Your task to perform on an android device: Open Google Image 0: 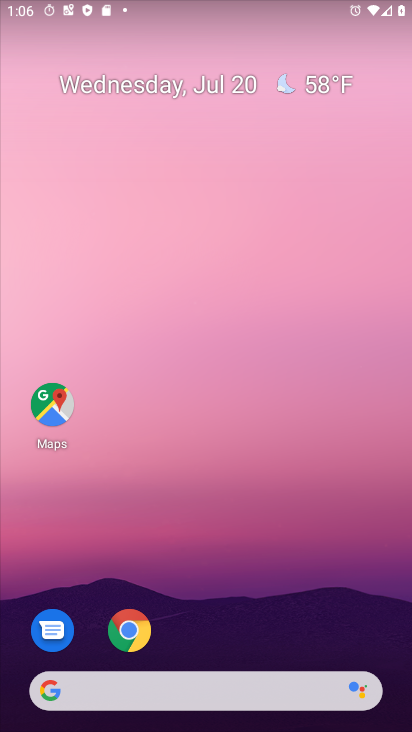
Step 0: drag from (150, 698) to (276, 102)
Your task to perform on an android device: Open Google Image 1: 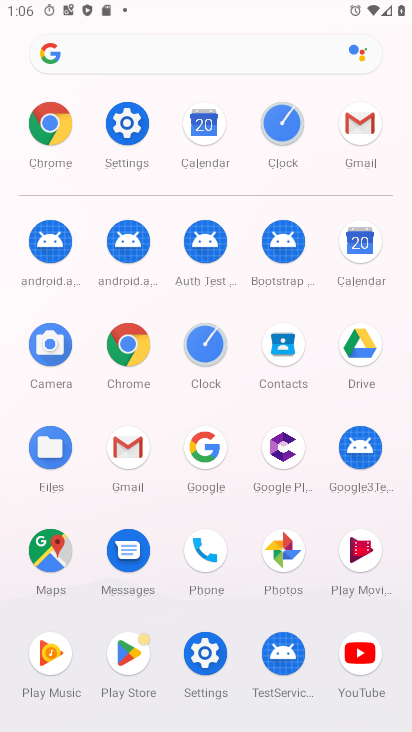
Step 1: click (209, 451)
Your task to perform on an android device: Open Google Image 2: 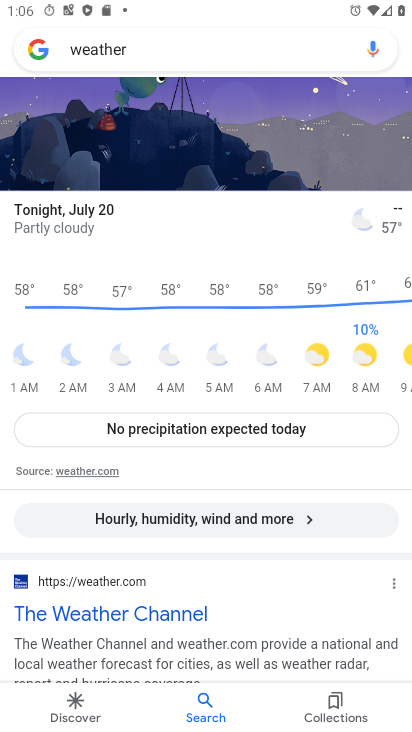
Step 2: task complete